Your task to perform on an android device: Open Google Maps Image 0: 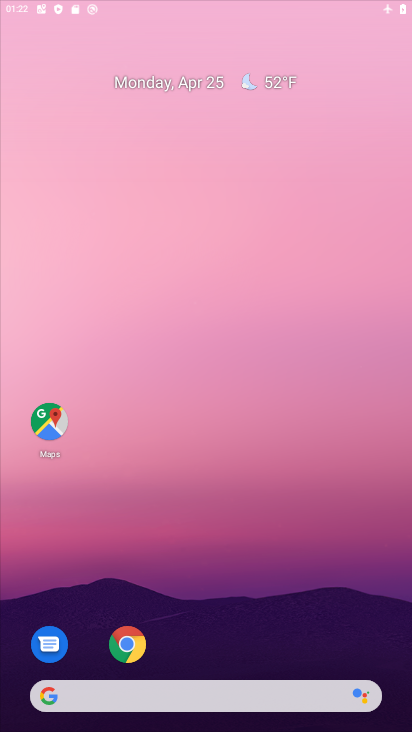
Step 0: click (133, 645)
Your task to perform on an android device: Open Google Maps Image 1: 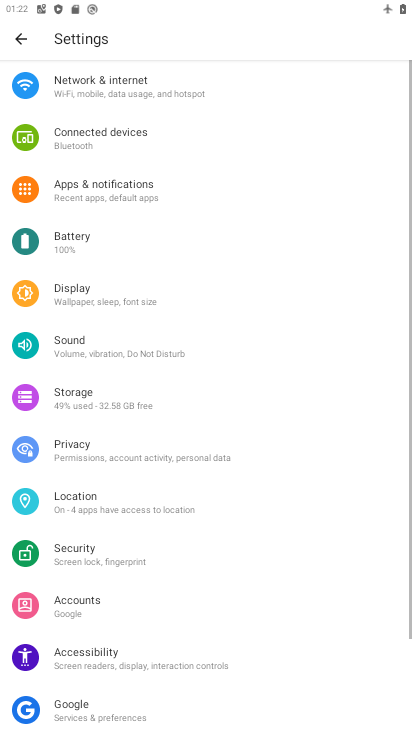
Step 1: press home button
Your task to perform on an android device: Open Google Maps Image 2: 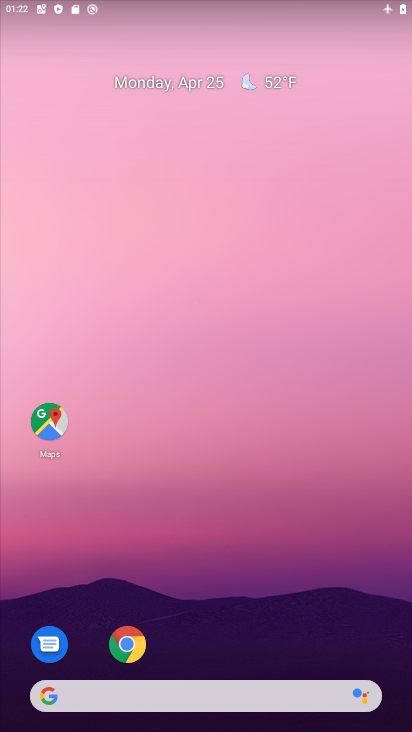
Step 2: click (45, 427)
Your task to perform on an android device: Open Google Maps Image 3: 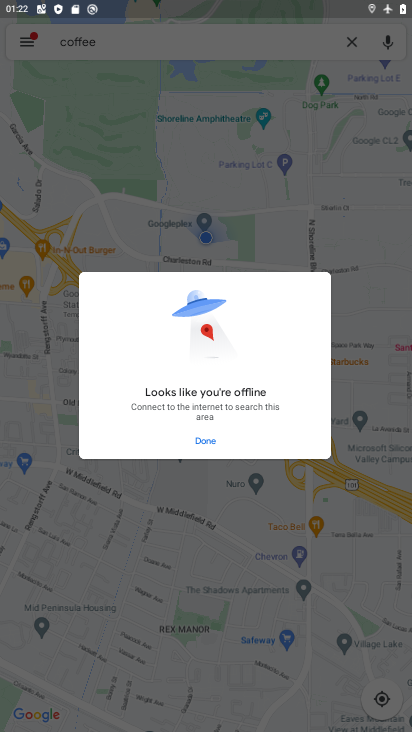
Step 3: task complete